Your task to perform on an android device: Show me the alarms in the clock app Image 0: 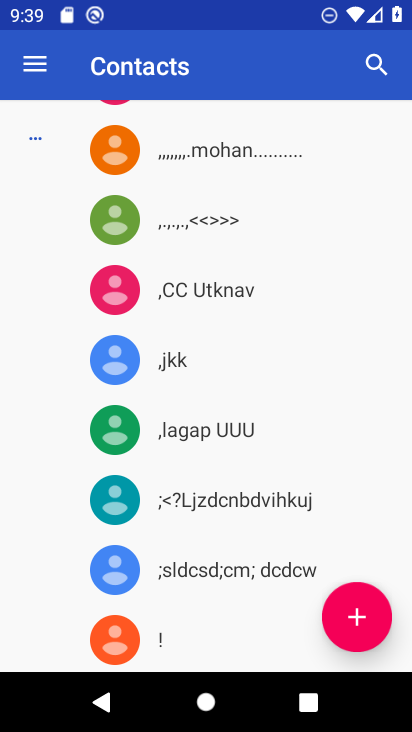
Step 0: press home button
Your task to perform on an android device: Show me the alarms in the clock app Image 1: 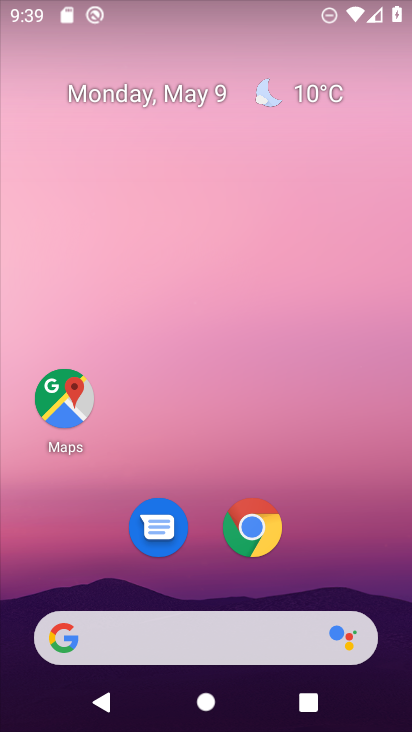
Step 1: drag from (202, 593) to (267, 183)
Your task to perform on an android device: Show me the alarms in the clock app Image 2: 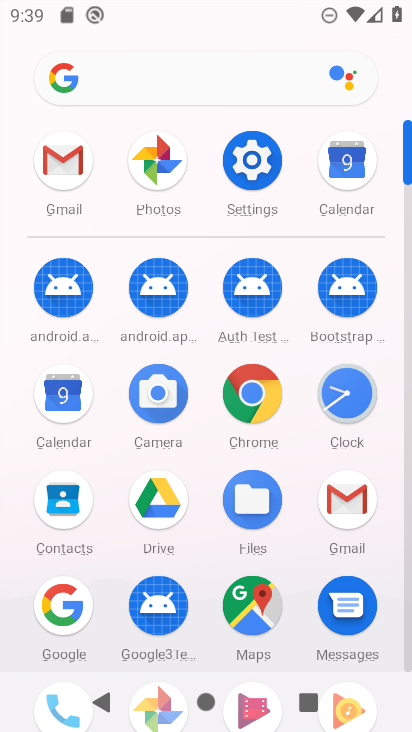
Step 2: click (347, 402)
Your task to perform on an android device: Show me the alarms in the clock app Image 3: 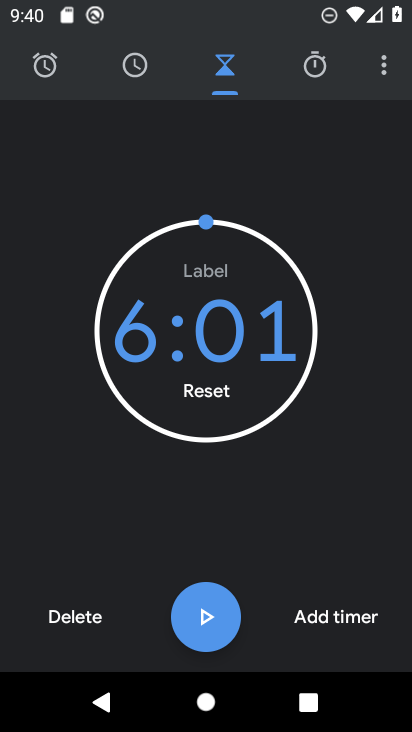
Step 3: click (55, 63)
Your task to perform on an android device: Show me the alarms in the clock app Image 4: 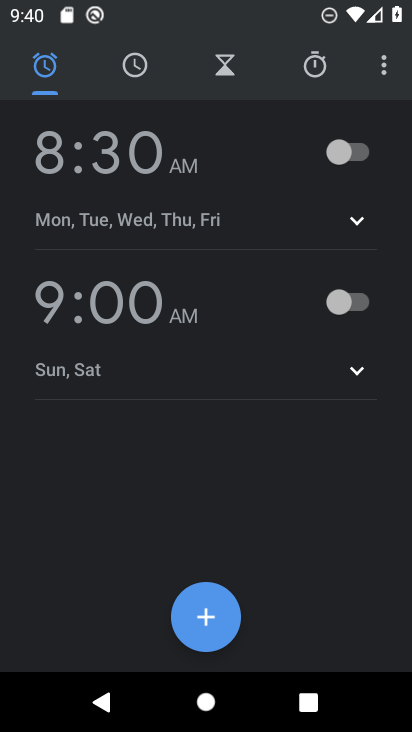
Step 4: task complete